Your task to perform on an android device: Open the Play Movies app and select the watchlist tab. Image 0: 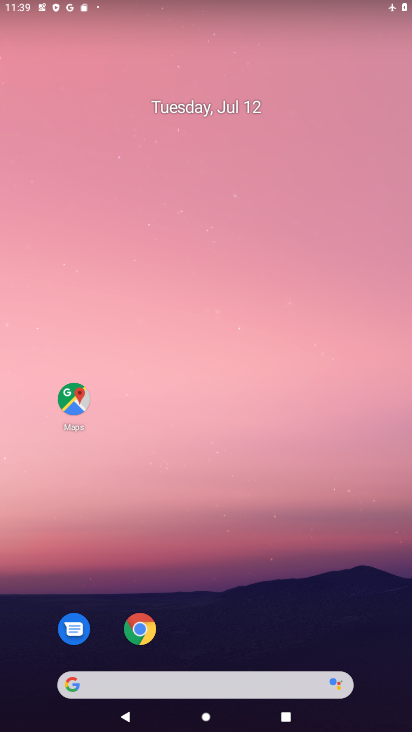
Step 0: drag from (216, 648) to (219, 182)
Your task to perform on an android device: Open the Play Movies app and select the watchlist tab. Image 1: 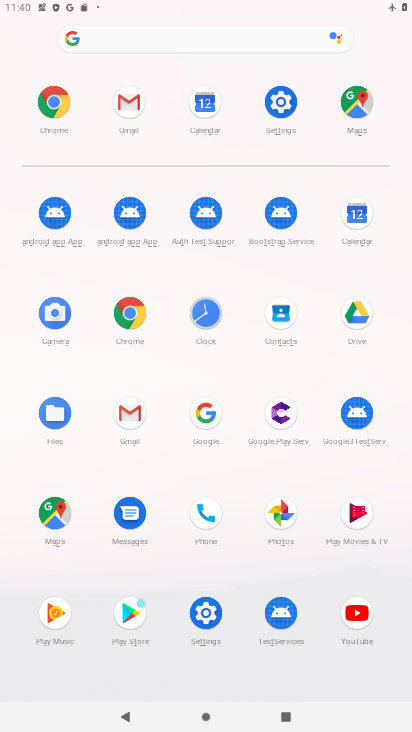
Step 1: click (345, 505)
Your task to perform on an android device: Open the Play Movies app and select the watchlist tab. Image 2: 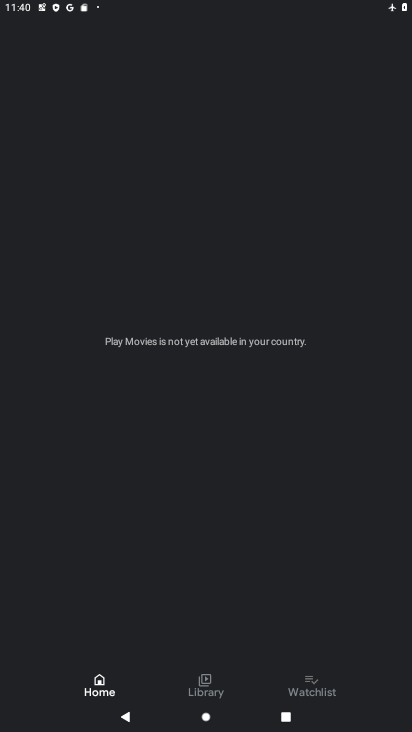
Step 2: click (293, 686)
Your task to perform on an android device: Open the Play Movies app and select the watchlist tab. Image 3: 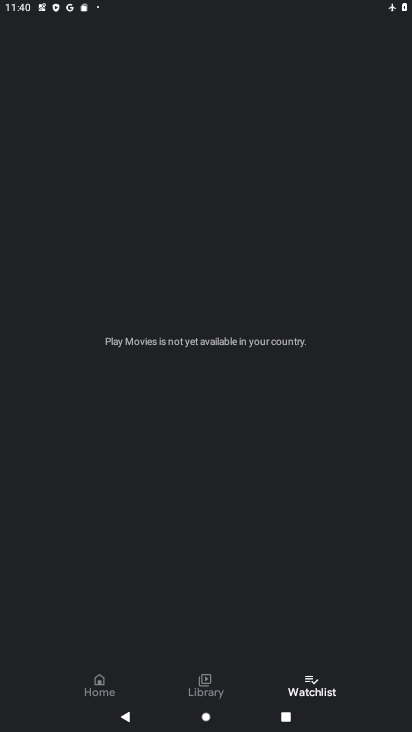
Step 3: task complete